Your task to perform on an android device: turn off location history Image 0: 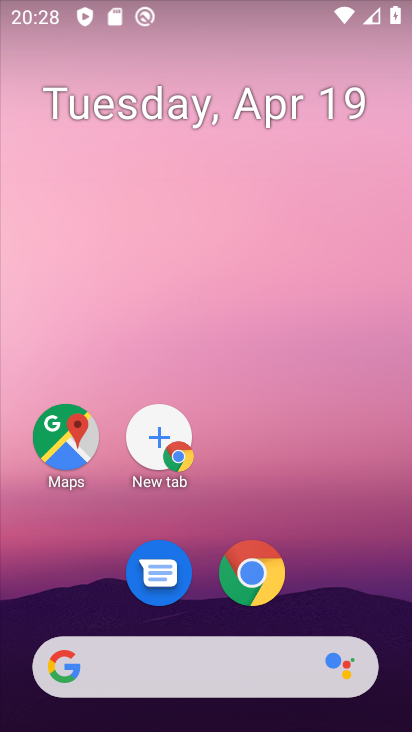
Step 0: drag from (369, 485) to (335, 211)
Your task to perform on an android device: turn off location history Image 1: 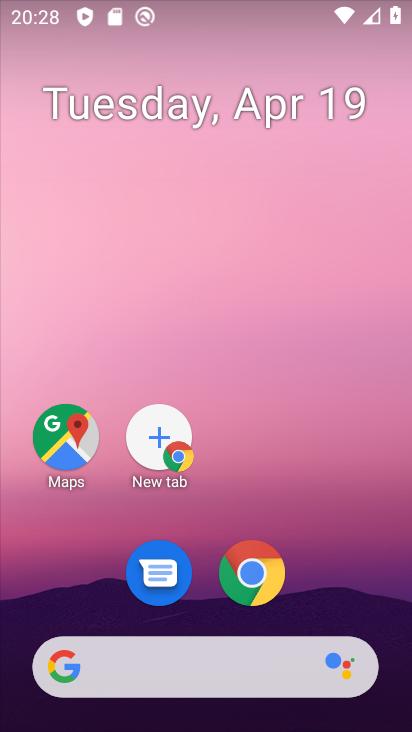
Step 1: drag from (386, 619) to (347, 196)
Your task to perform on an android device: turn off location history Image 2: 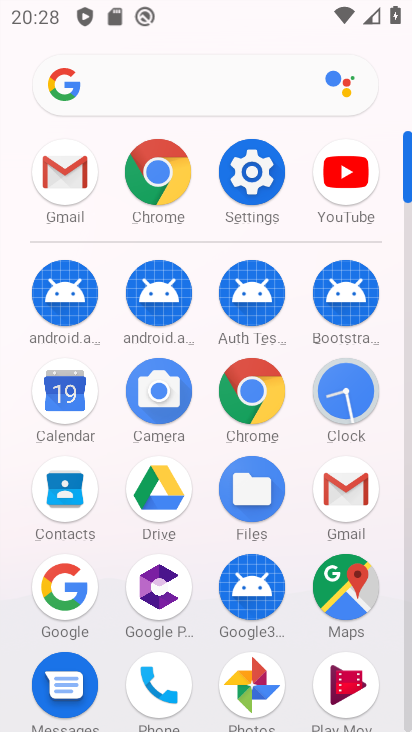
Step 2: click (268, 173)
Your task to perform on an android device: turn off location history Image 3: 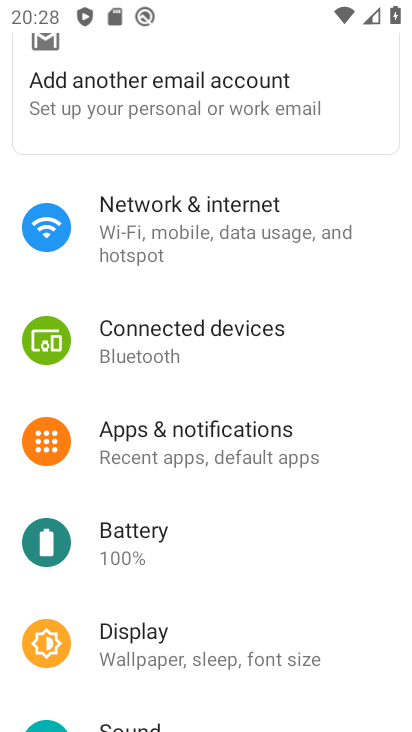
Step 3: drag from (373, 587) to (354, 243)
Your task to perform on an android device: turn off location history Image 4: 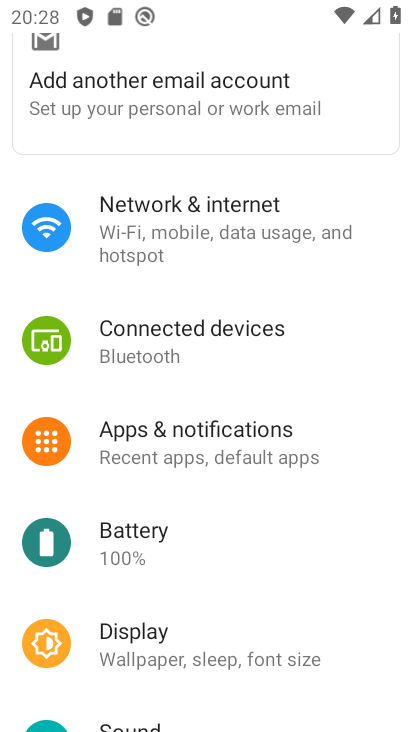
Step 4: drag from (370, 343) to (365, 209)
Your task to perform on an android device: turn off location history Image 5: 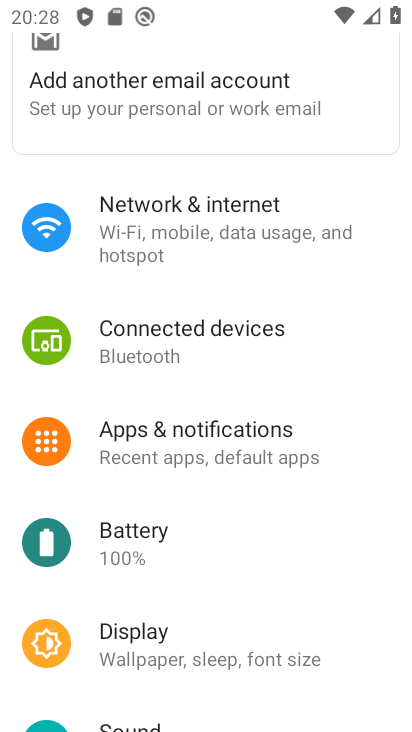
Step 5: drag from (397, 478) to (393, 183)
Your task to perform on an android device: turn off location history Image 6: 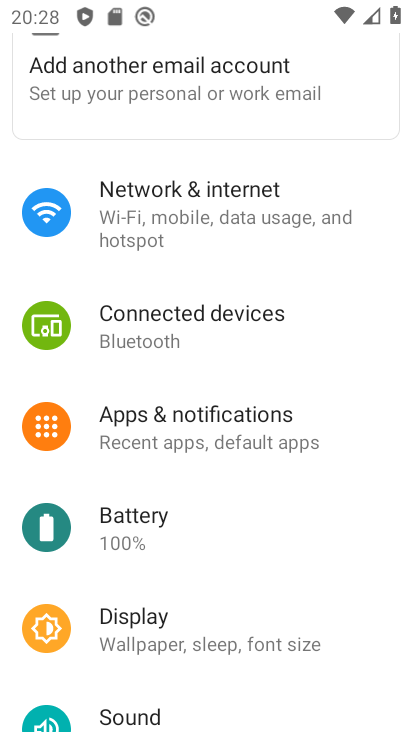
Step 6: drag from (374, 666) to (407, 211)
Your task to perform on an android device: turn off location history Image 7: 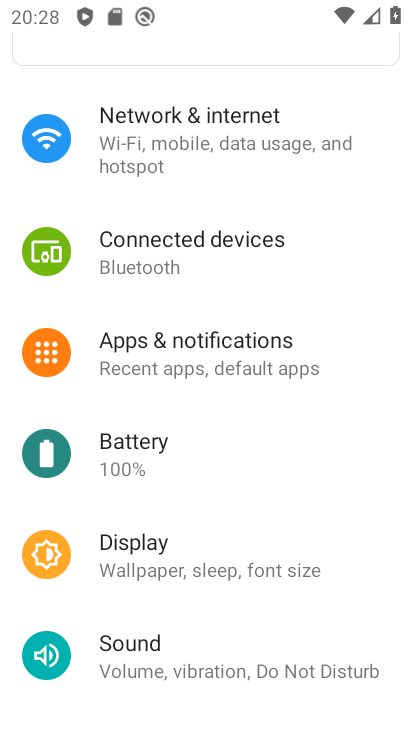
Step 7: drag from (393, 551) to (398, 177)
Your task to perform on an android device: turn off location history Image 8: 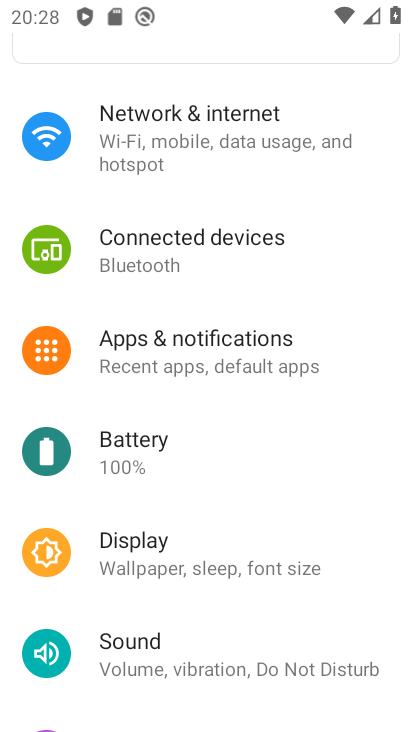
Step 8: drag from (394, 318) to (392, 139)
Your task to perform on an android device: turn off location history Image 9: 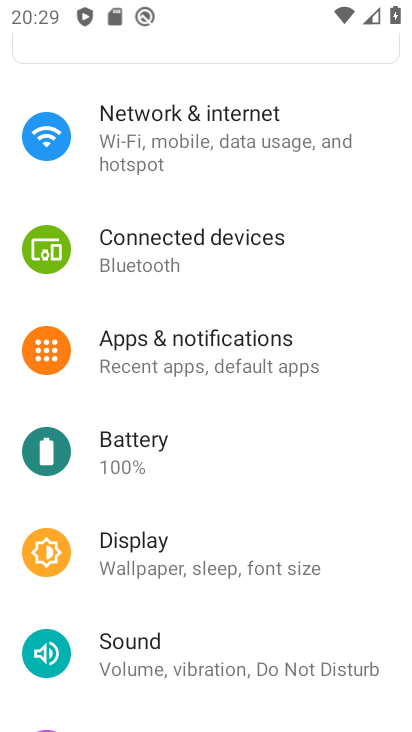
Step 9: drag from (395, 701) to (386, 204)
Your task to perform on an android device: turn off location history Image 10: 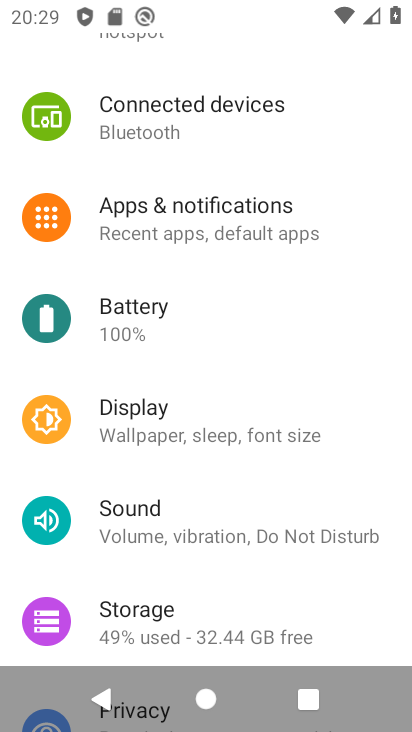
Step 10: drag from (394, 596) to (408, 226)
Your task to perform on an android device: turn off location history Image 11: 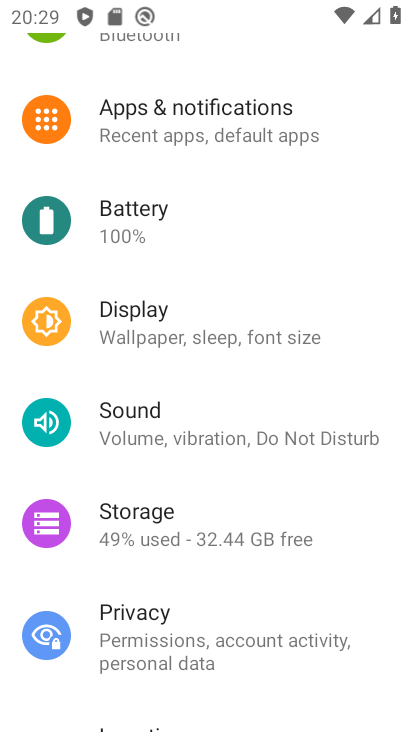
Step 11: drag from (395, 419) to (396, 193)
Your task to perform on an android device: turn off location history Image 12: 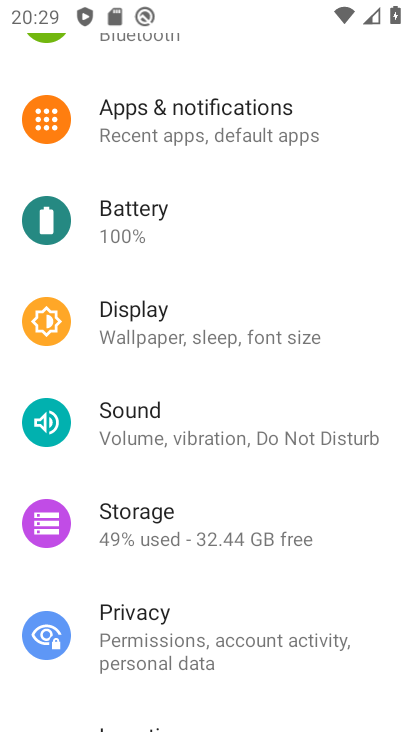
Step 12: drag from (374, 316) to (347, 92)
Your task to perform on an android device: turn off location history Image 13: 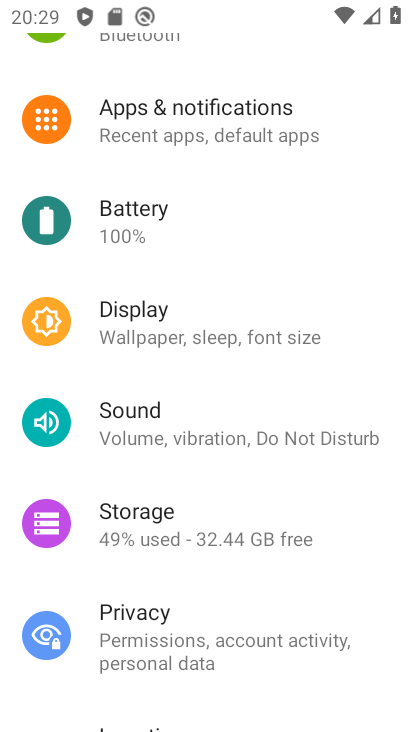
Step 13: drag from (399, 587) to (394, 182)
Your task to perform on an android device: turn off location history Image 14: 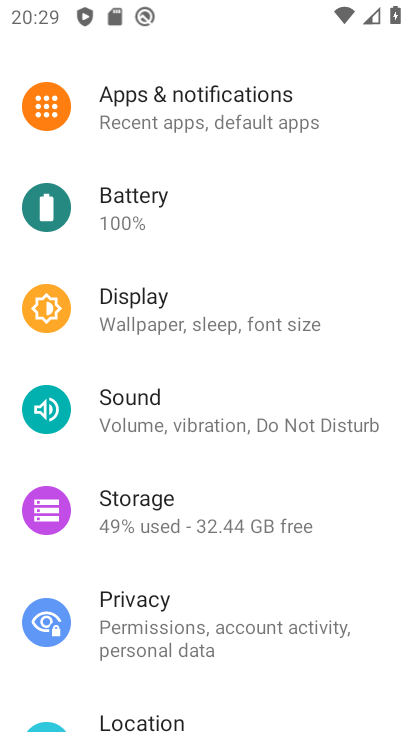
Step 14: click (159, 716)
Your task to perform on an android device: turn off location history Image 15: 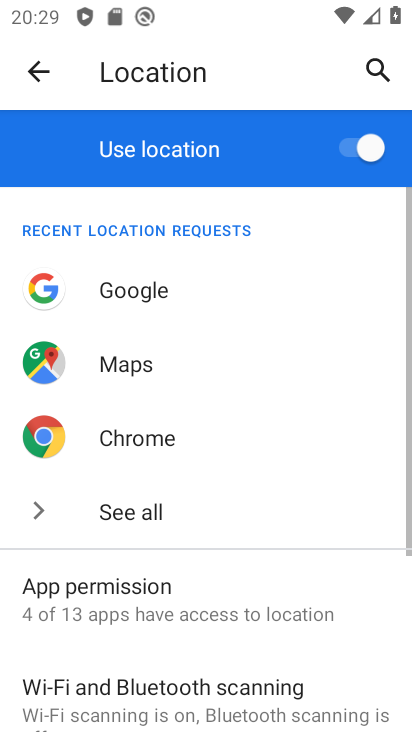
Step 15: drag from (286, 642) to (308, 182)
Your task to perform on an android device: turn off location history Image 16: 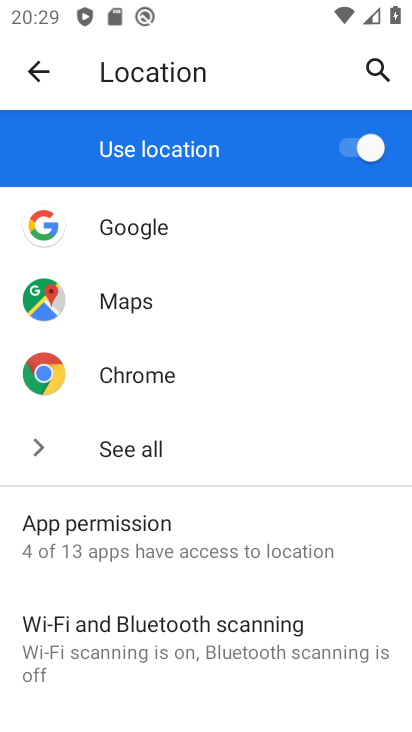
Step 16: drag from (325, 635) to (342, 224)
Your task to perform on an android device: turn off location history Image 17: 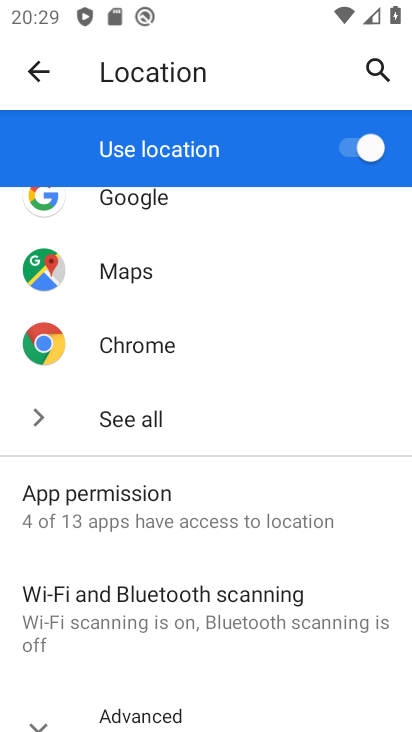
Step 17: drag from (334, 603) to (280, 299)
Your task to perform on an android device: turn off location history Image 18: 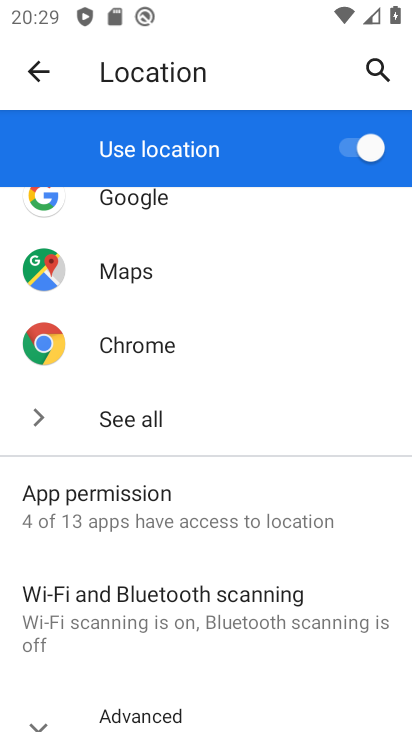
Step 18: click (116, 709)
Your task to perform on an android device: turn off location history Image 19: 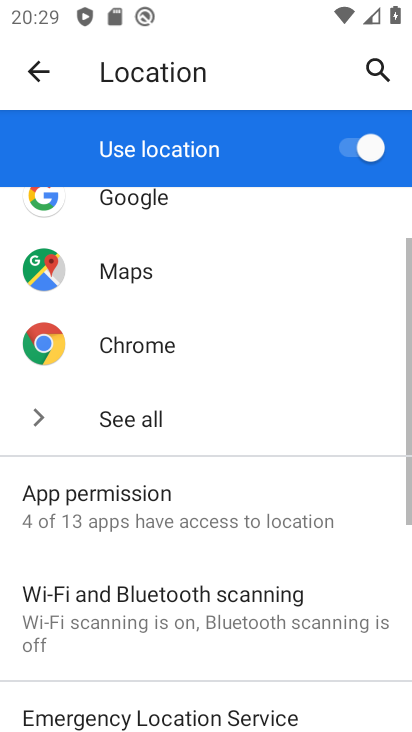
Step 19: drag from (339, 703) to (345, 269)
Your task to perform on an android device: turn off location history Image 20: 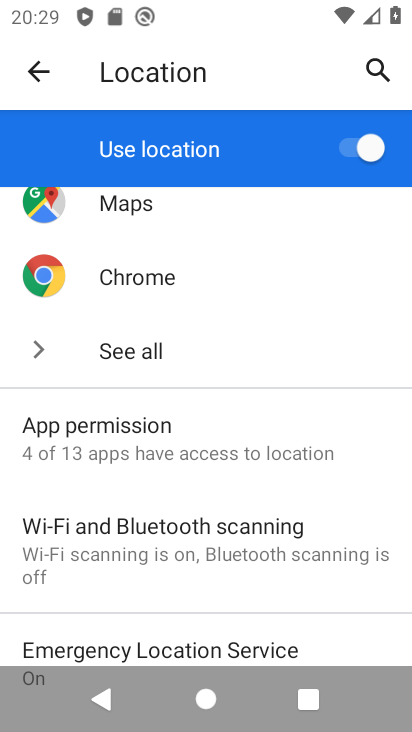
Step 20: drag from (340, 597) to (318, 262)
Your task to perform on an android device: turn off location history Image 21: 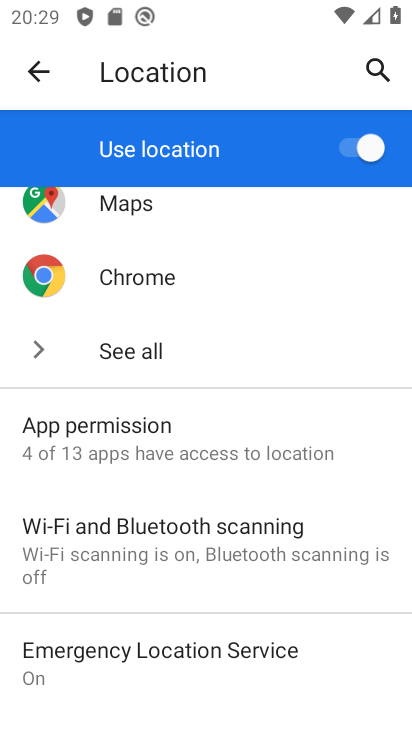
Step 21: drag from (324, 683) to (335, 275)
Your task to perform on an android device: turn off location history Image 22: 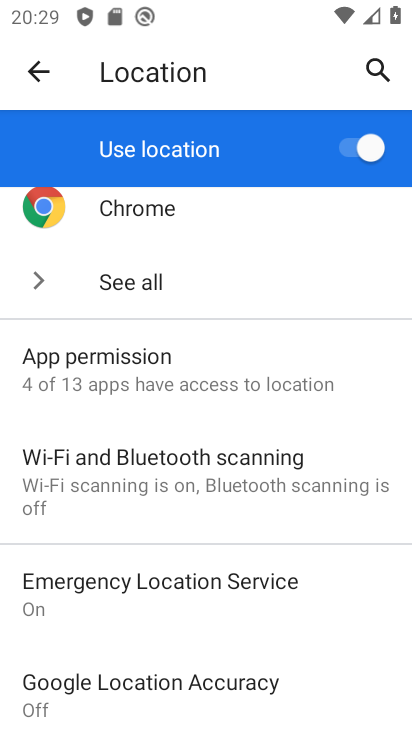
Step 22: drag from (336, 675) to (324, 275)
Your task to perform on an android device: turn off location history Image 23: 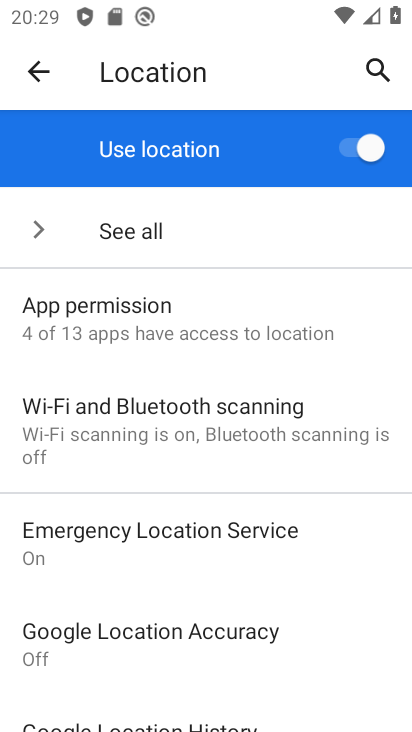
Step 23: drag from (302, 661) to (351, 210)
Your task to perform on an android device: turn off location history Image 24: 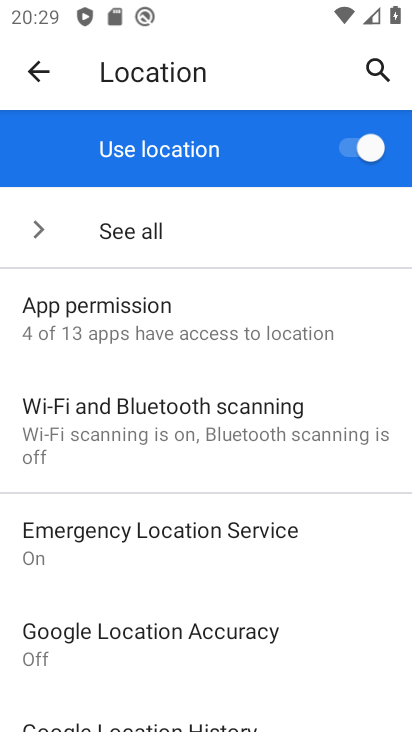
Step 24: drag from (342, 458) to (328, 274)
Your task to perform on an android device: turn off location history Image 25: 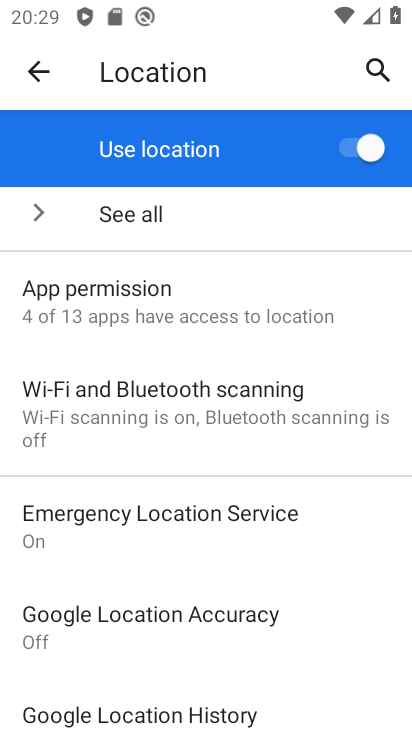
Step 25: drag from (314, 651) to (335, 217)
Your task to perform on an android device: turn off location history Image 26: 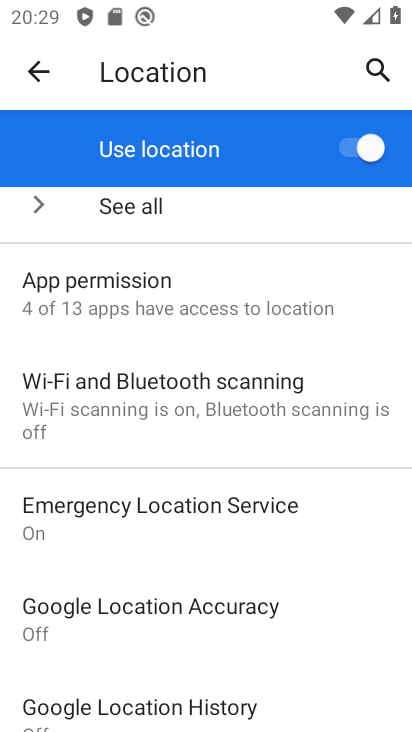
Step 26: click (104, 709)
Your task to perform on an android device: turn off location history Image 27: 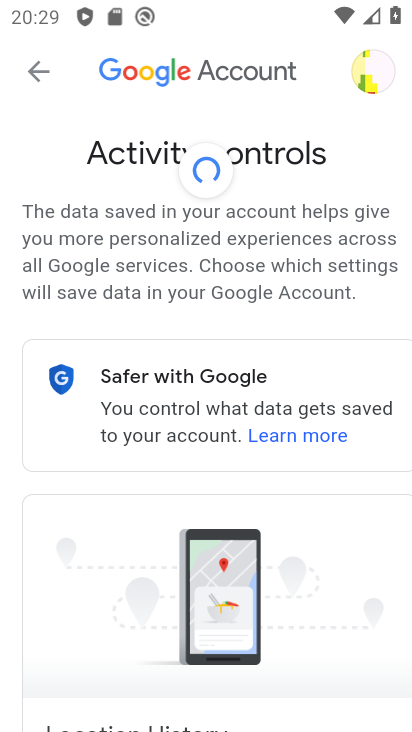
Step 27: task complete